Your task to perform on an android device: What's the weather today? Image 0: 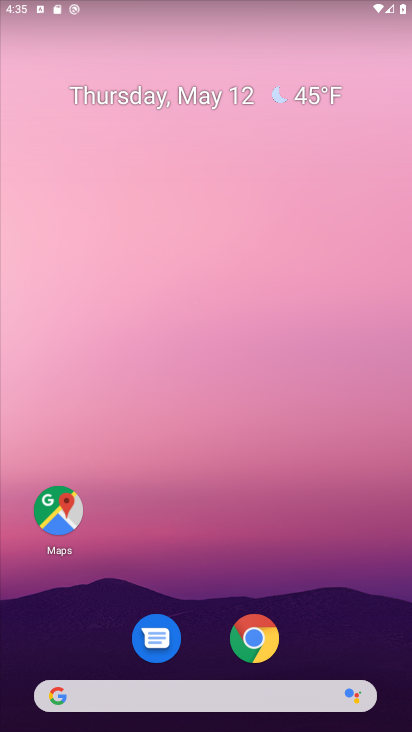
Step 0: click (312, 90)
Your task to perform on an android device: What's the weather today? Image 1: 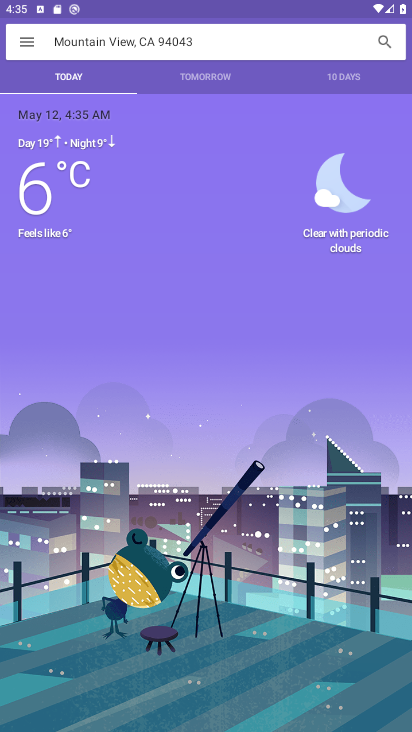
Step 1: task complete